Your task to perform on an android device: toggle notifications settings in the gmail app Image 0: 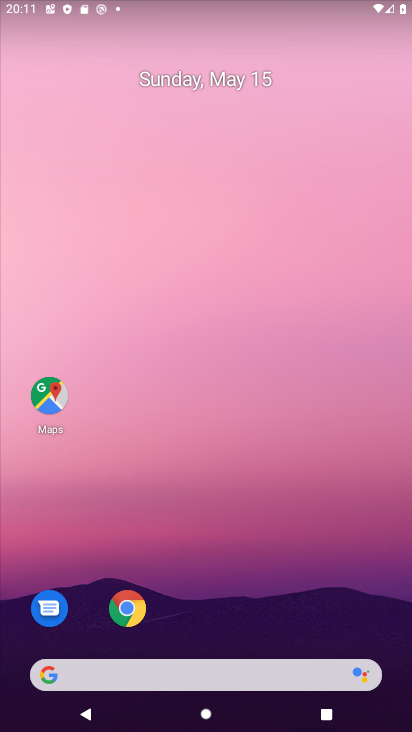
Step 0: drag from (214, 620) to (286, 81)
Your task to perform on an android device: toggle notifications settings in the gmail app Image 1: 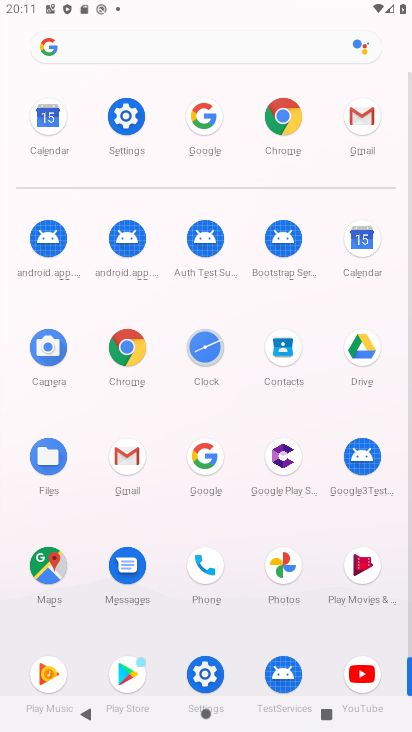
Step 1: click (125, 440)
Your task to perform on an android device: toggle notifications settings in the gmail app Image 2: 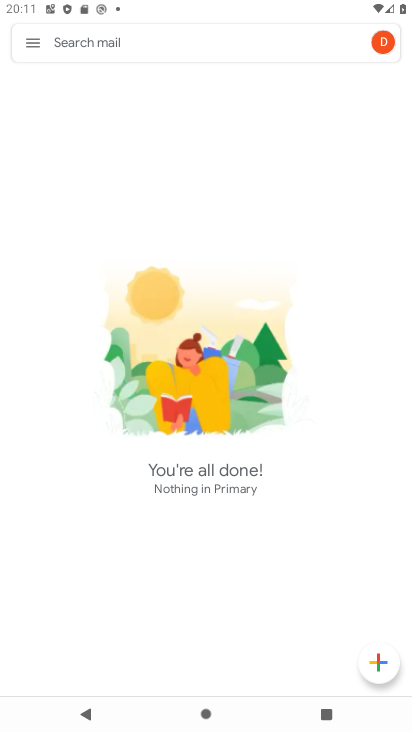
Step 2: click (34, 44)
Your task to perform on an android device: toggle notifications settings in the gmail app Image 3: 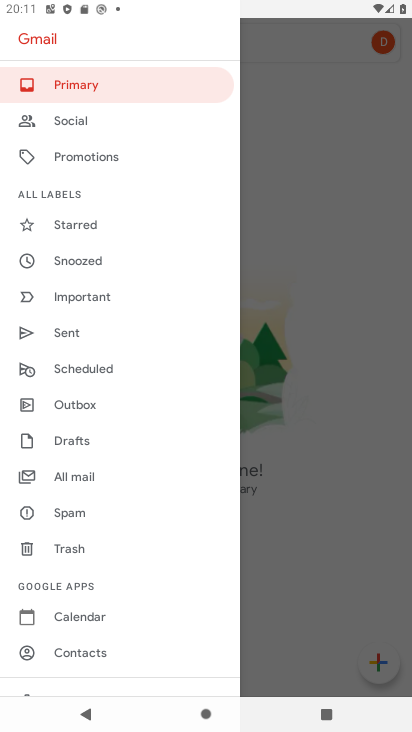
Step 3: drag from (88, 586) to (135, 306)
Your task to perform on an android device: toggle notifications settings in the gmail app Image 4: 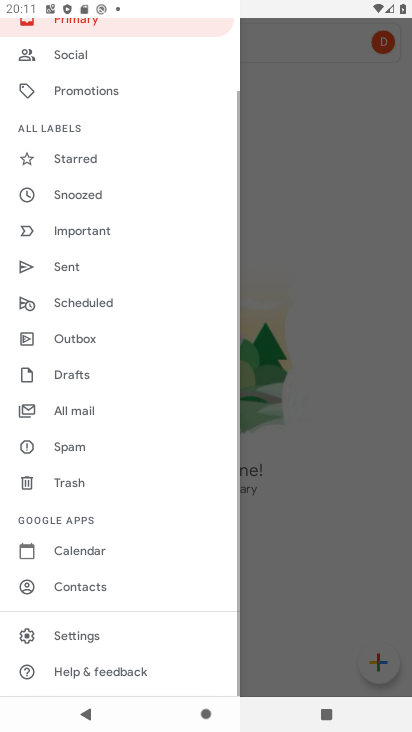
Step 4: click (83, 634)
Your task to perform on an android device: toggle notifications settings in the gmail app Image 5: 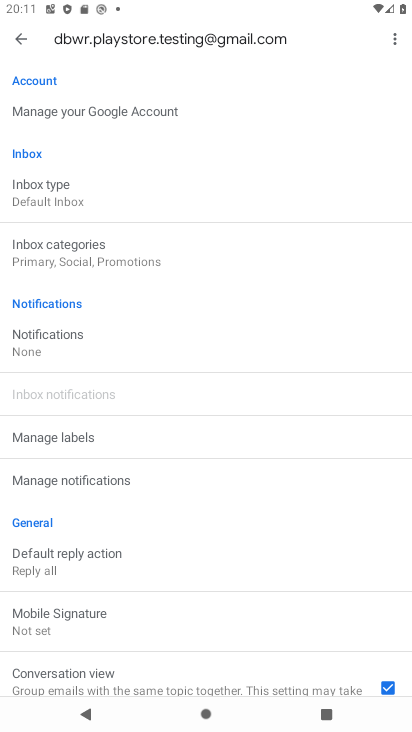
Step 5: click (55, 334)
Your task to perform on an android device: toggle notifications settings in the gmail app Image 6: 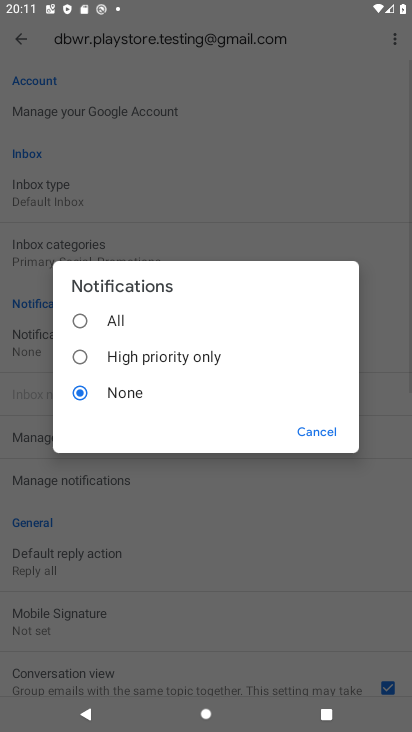
Step 6: click (73, 323)
Your task to perform on an android device: toggle notifications settings in the gmail app Image 7: 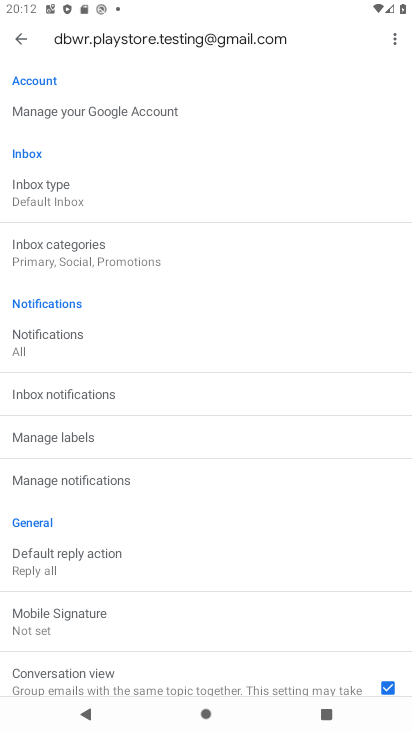
Step 7: task complete